Your task to perform on an android device: turn on the 12-hour format for clock Image 0: 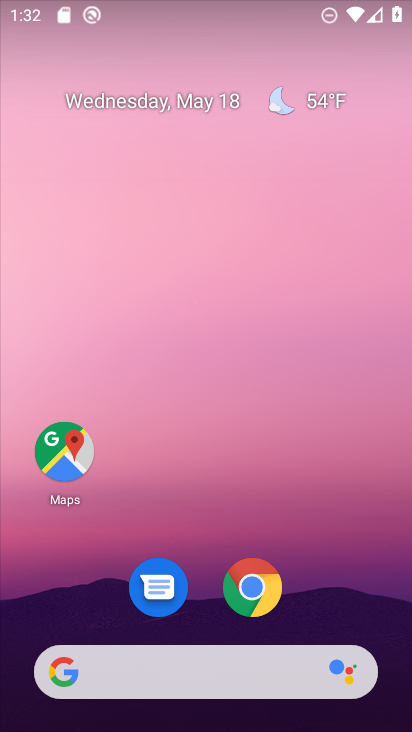
Step 0: drag from (98, 602) to (254, 90)
Your task to perform on an android device: turn on the 12-hour format for clock Image 1: 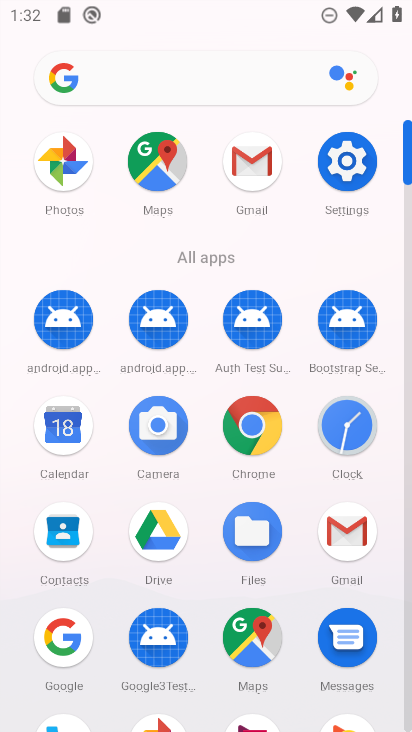
Step 1: click (355, 433)
Your task to perform on an android device: turn on the 12-hour format for clock Image 2: 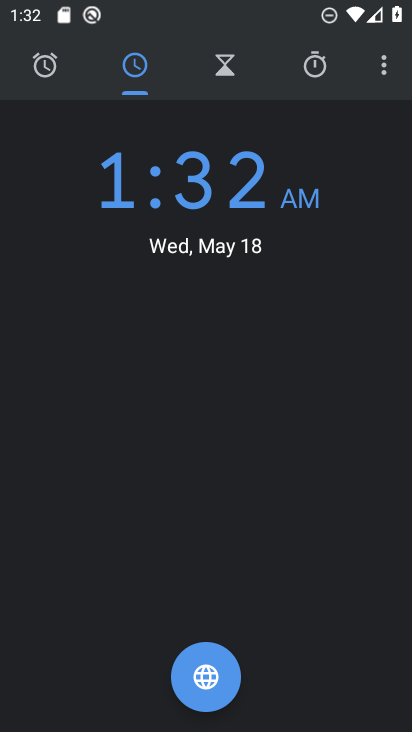
Step 2: click (375, 68)
Your task to perform on an android device: turn on the 12-hour format for clock Image 3: 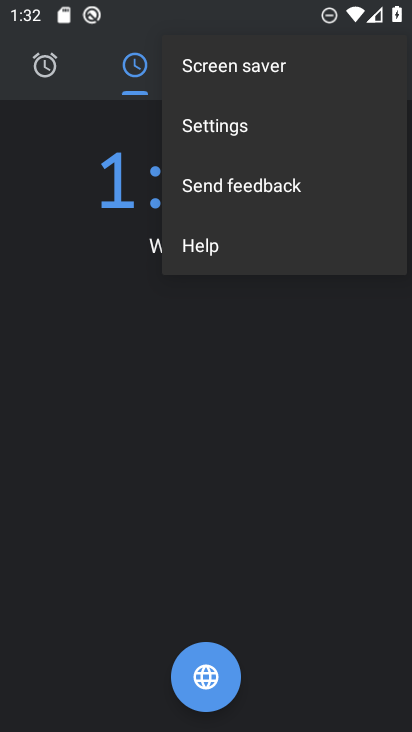
Step 3: click (325, 130)
Your task to perform on an android device: turn on the 12-hour format for clock Image 4: 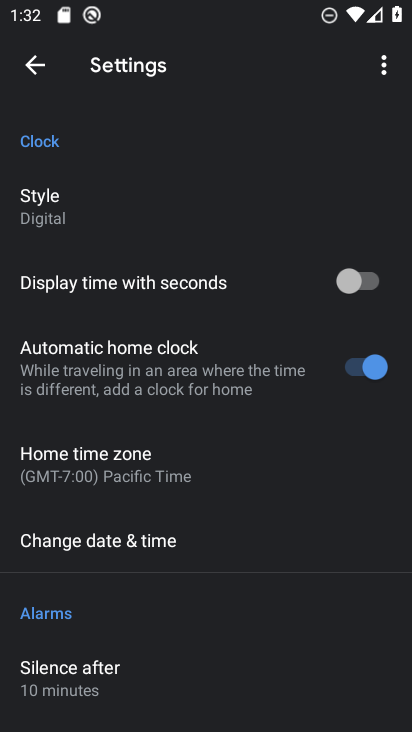
Step 4: click (163, 557)
Your task to perform on an android device: turn on the 12-hour format for clock Image 5: 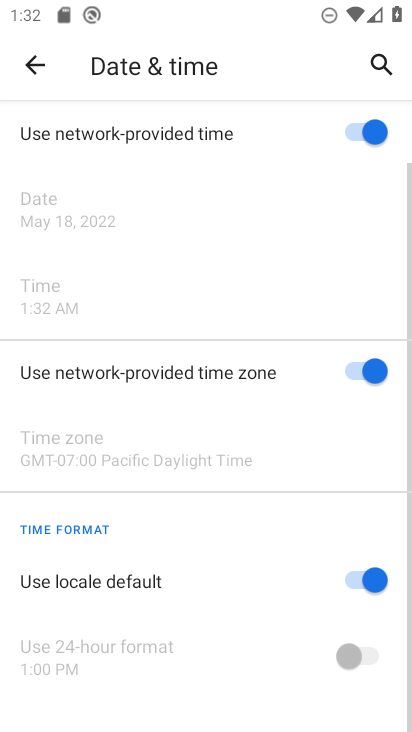
Step 5: task complete